Your task to perform on an android device: toggle improve location accuracy Image 0: 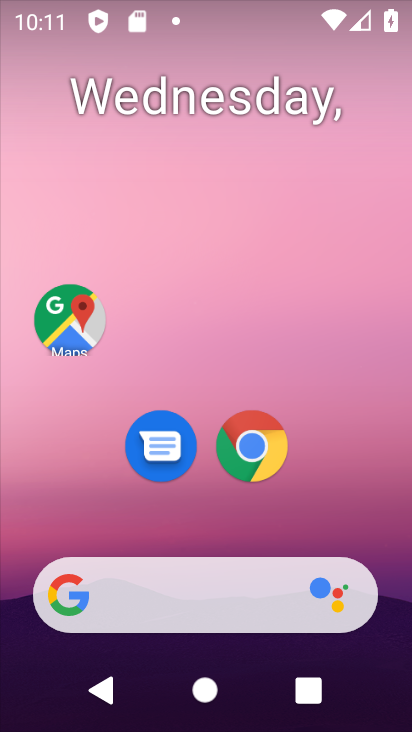
Step 0: drag from (60, 546) to (203, 122)
Your task to perform on an android device: toggle improve location accuracy Image 1: 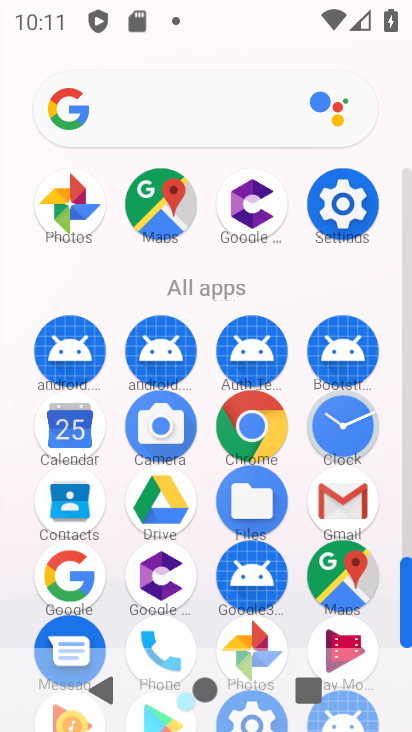
Step 1: drag from (192, 642) to (283, 296)
Your task to perform on an android device: toggle improve location accuracy Image 2: 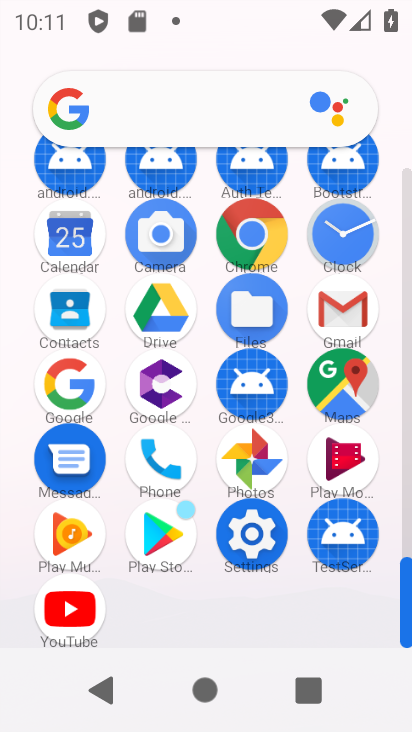
Step 2: click (255, 525)
Your task to perform on an android device: toggle improve location accuracy Image 3: 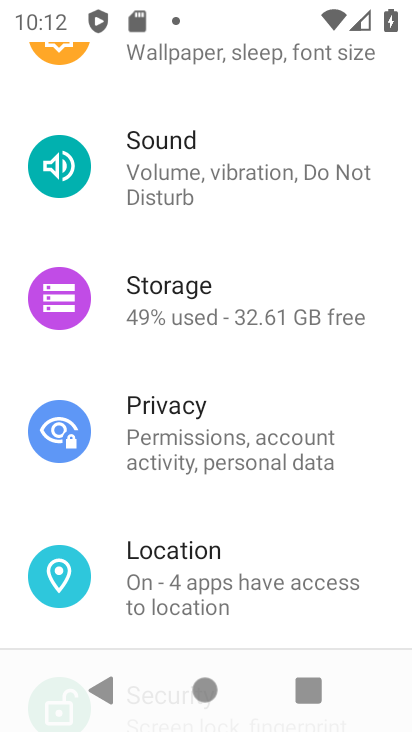
Step 3: drag from (211, 573) to (272, 284)
Your task to perform on an android device: toggle improve location accuracy Image 4: 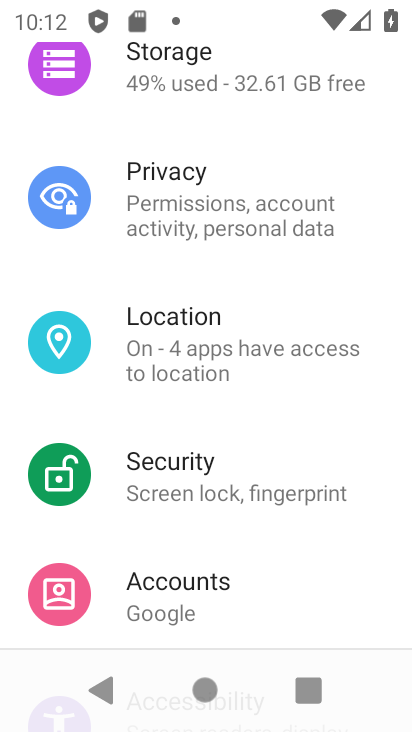
Step 4: click (218, 341)
Your task to perform on an android device: toggle improve location accuracy Image 5: 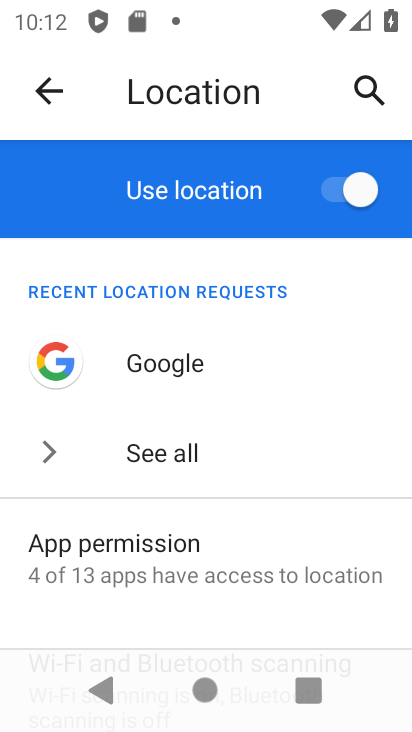
Step 5: drag from (160, 591) to (241, 373)
Your task to perform on an android device: toggle improve location accuracy Image 6: 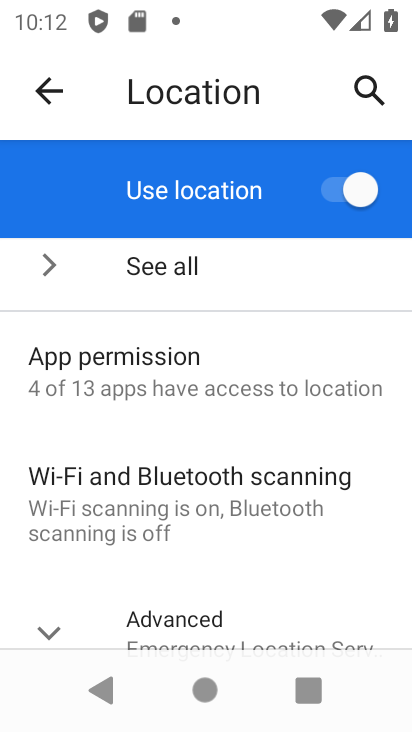
Step 6: click (201, 618)
Your task to perform on an android device: toggle improve location accuracy Image 7: 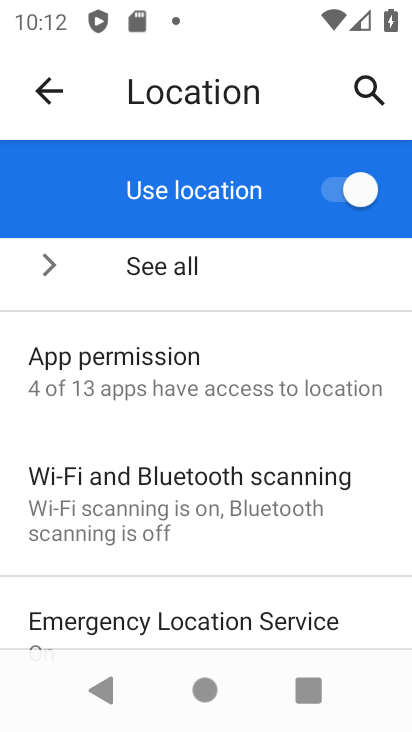
Step 7: drag from (221, 657) to (296, 352)
Your task to perform on an android device: toggle improve location accuracy Image 8: 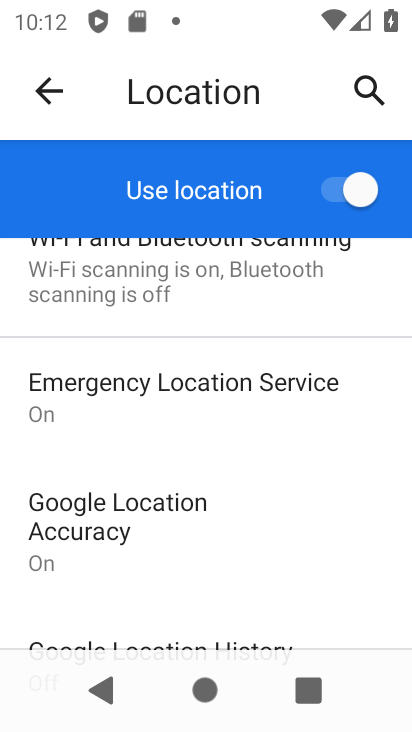
Step 8: drag from (199, 599) to (262, 350)
Your task to perform on an android device: toggle improve location accuracy Image 9: 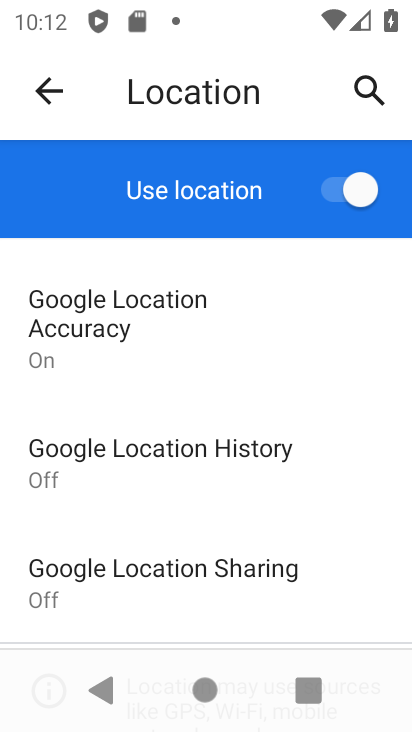
Step 9: click (189, 358)
Your task to perform on an android device: toggle improve location accuracy Image 10: 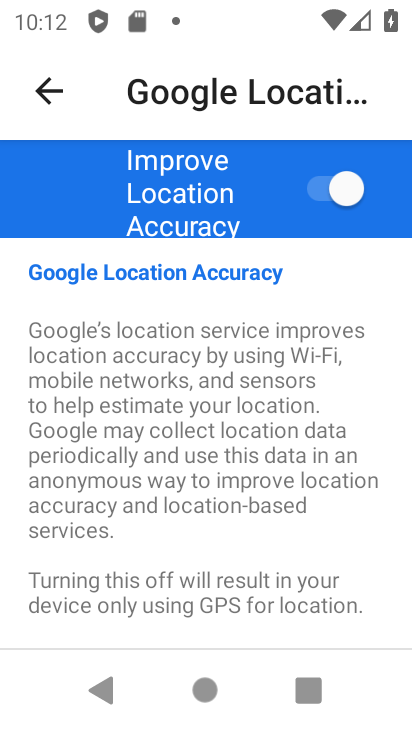
Step 10: click (302, 184)
Your task to perform on an android device: toggle improve location accuracy Image 11: 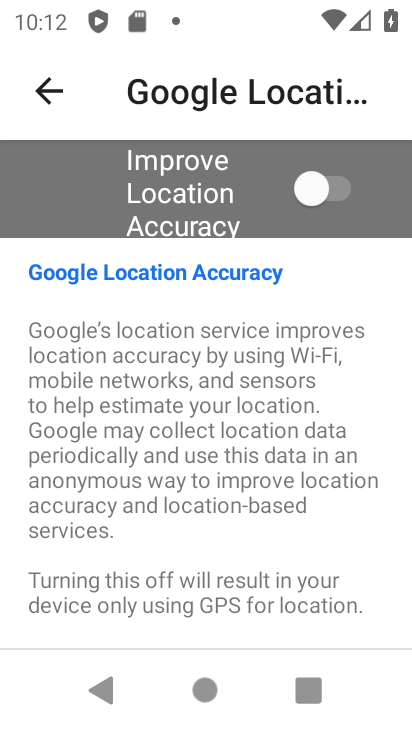
Step 11: task complete